Your task to perform on an android device: refresh tabs in the chrome app Image 0: 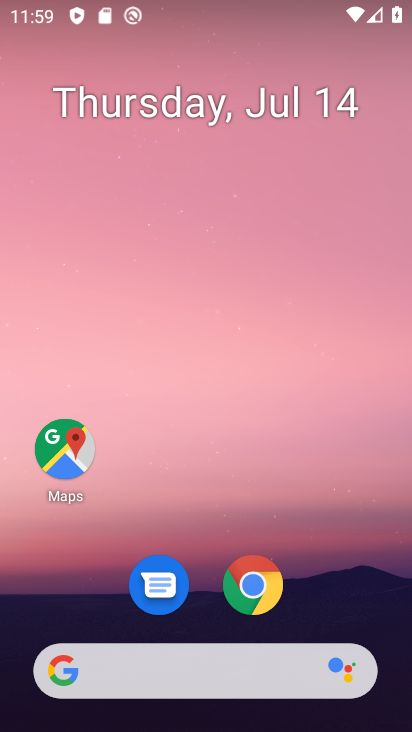
Step 0: click (269, 590)
Your task to perform on an android device: refresh tabs in the chrome app Image 1: 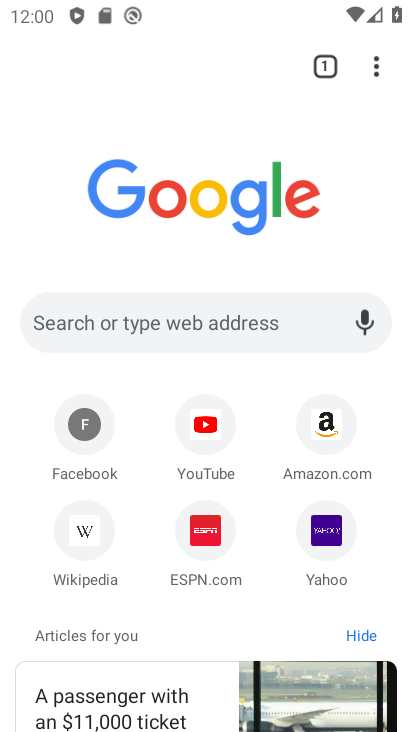
Step 1: click (375, 71)
Your task to perform on an android device: refresh tabs in the chrome app Image 2: 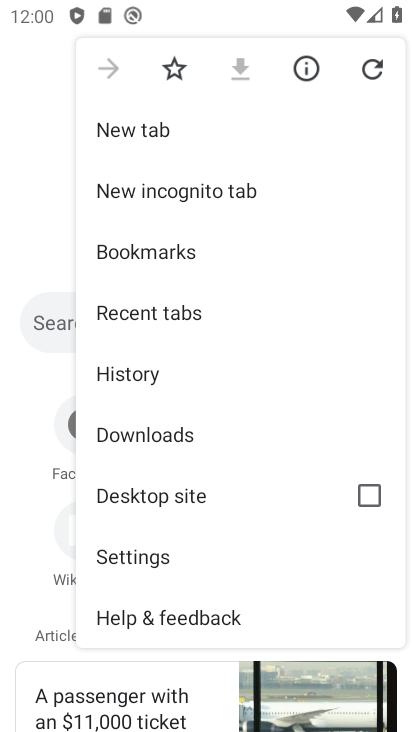
Step 2: click (371, 62)
Your task to perform on an android device: refresh tabs in the chrome app Image 3: 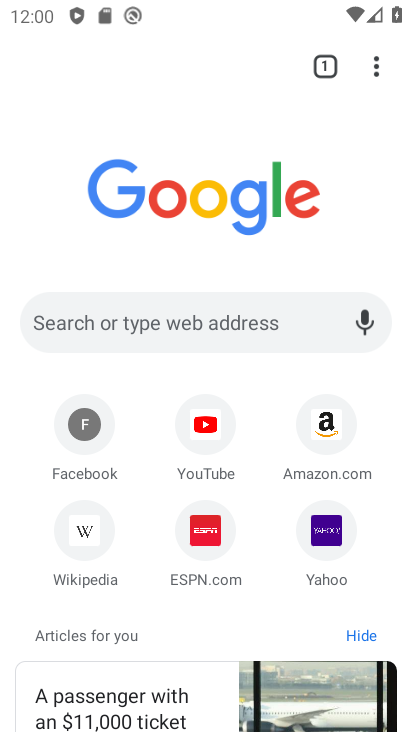
Step 3: task complete